Your task to perform on an android device: Open the stopwatch Image 0: 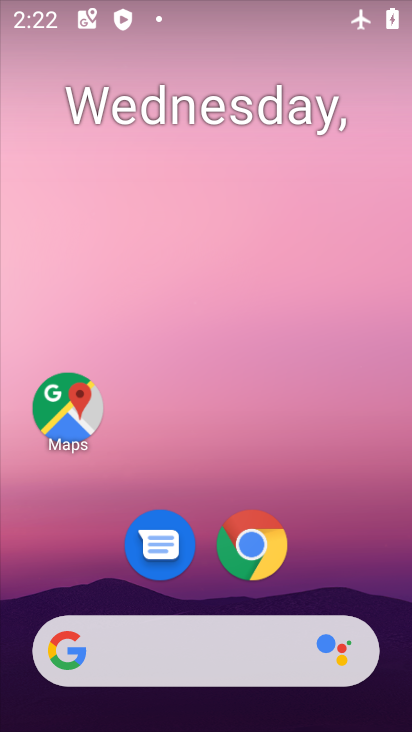
Step 0: drag from (332, 548) to (278, 82)
Your task to perform on an android device: Open the stopwatch Image 1: 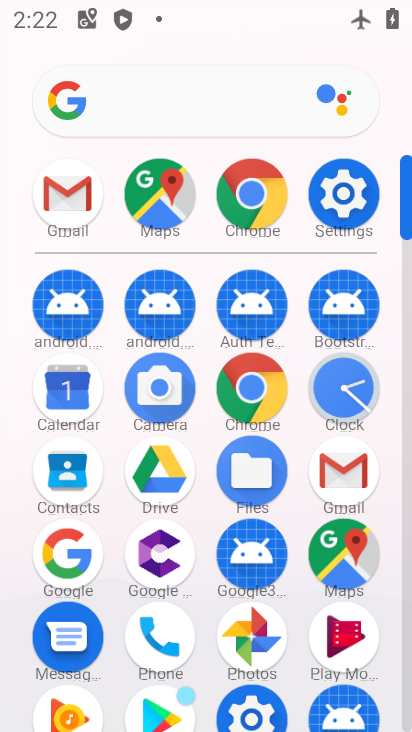
Step 1: click (344, 382)
Your task to perform on an android device: Open the stopwatch Image 2: 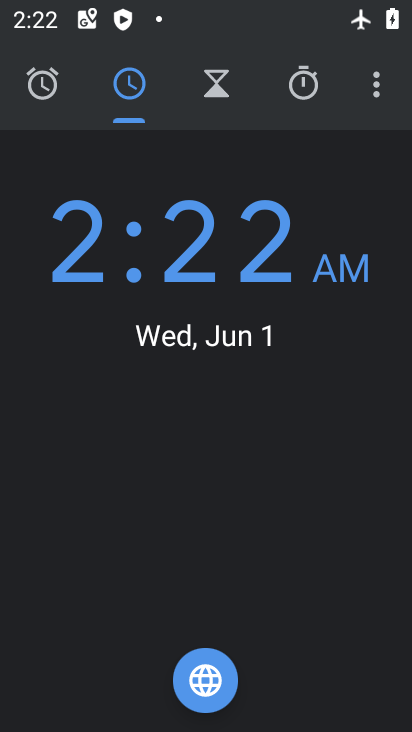
Step 2: click (293, 80)
Your task to perform on an android device: Open the stopwatch Image 3: 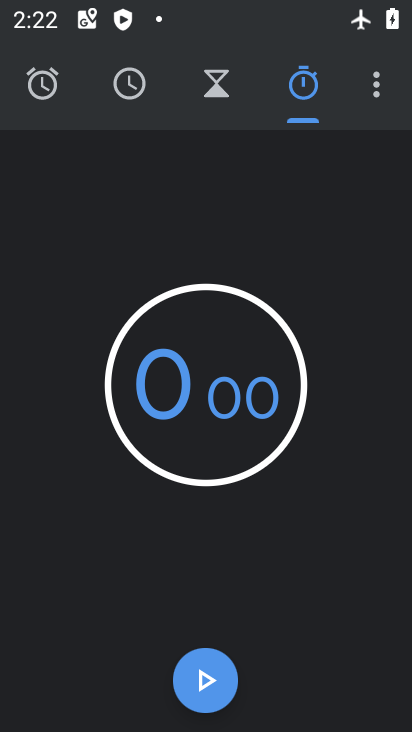
Step 3: task complete